Your task to perform on an android device: Go to internet settings Image 0: 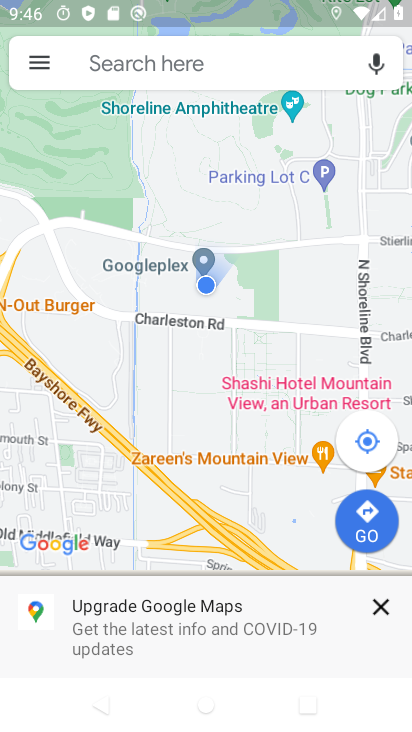
Step 0: press home button
Your task to perform on an android device: Go to internet settings Image 1: 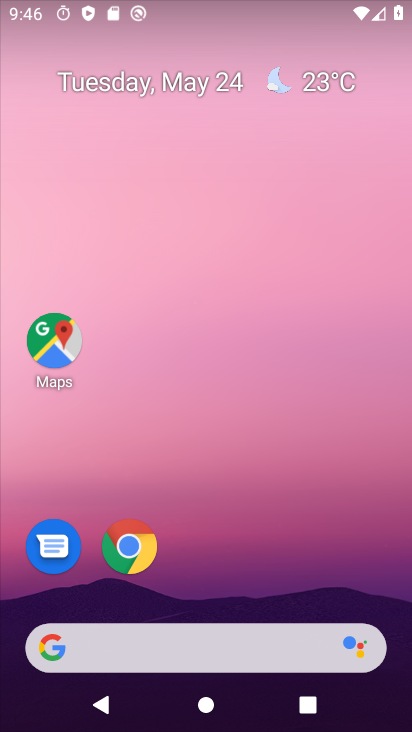
Step 1: drag from (210, 569) to (177, 72)
Your task to perform on an android device: Go to internet settings Image 2: 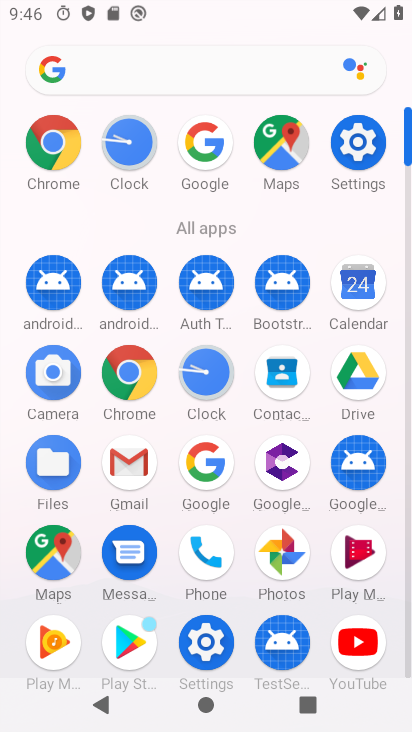
Step 2: click (359, 145)
Your task to perform on an android device: Go to internet settings Image 3: 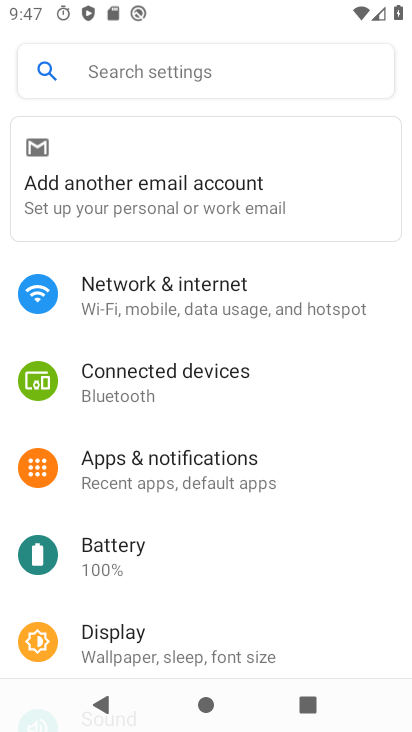
Step 3: click (168, 301)
Your task to perform on an android device: Go to internet settings Image 4: 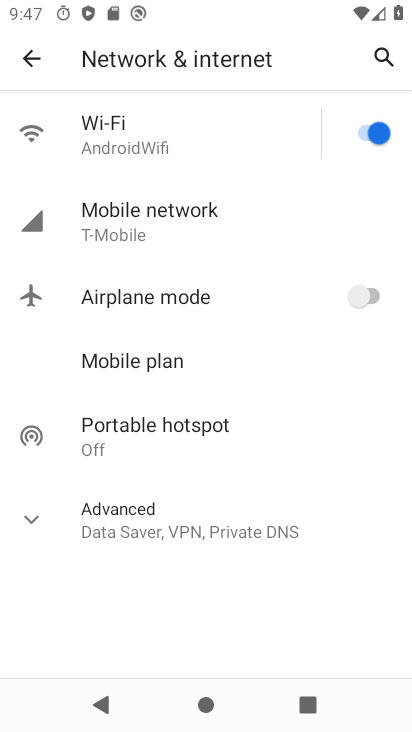
Step 4: click (149, 128)
Your task to perform on an android device: Go to internet settings Image 5: 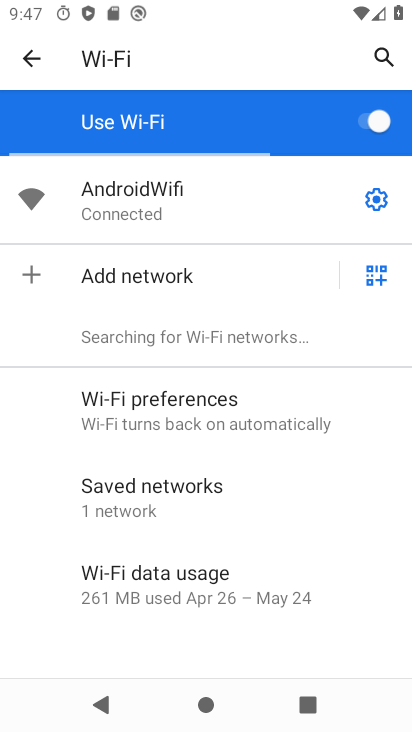
Step 5: click (252, 194)
Your task to perform on an android device: Go to internet settings Image 6: 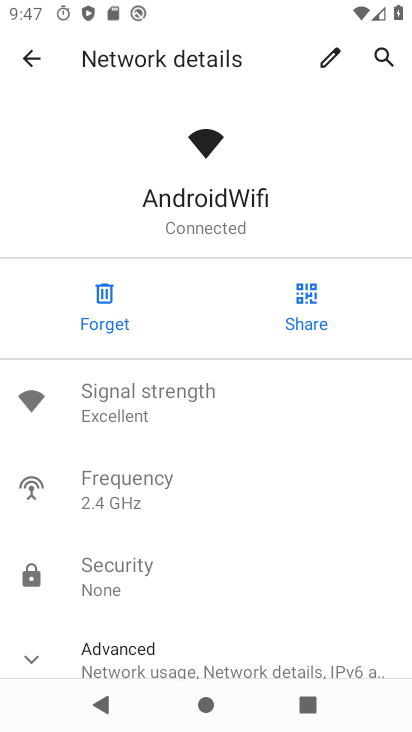
Step 6: task complete